Your task to perform on an android device: empty trash in google photos Image 0: 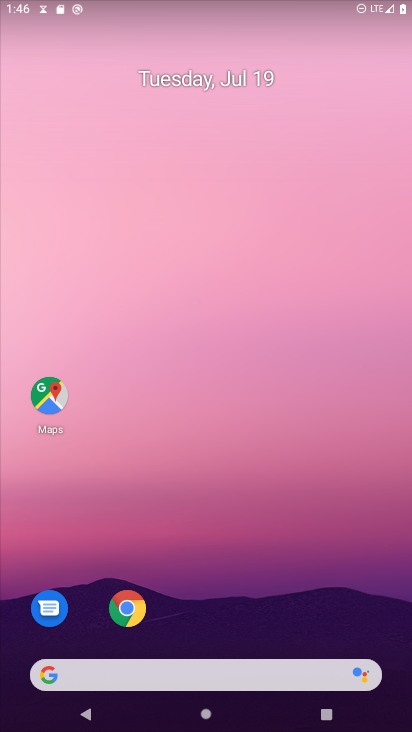
Step 0: click (222, 36)
Your task to perform on an android device: empty trash in google photos Image 1: 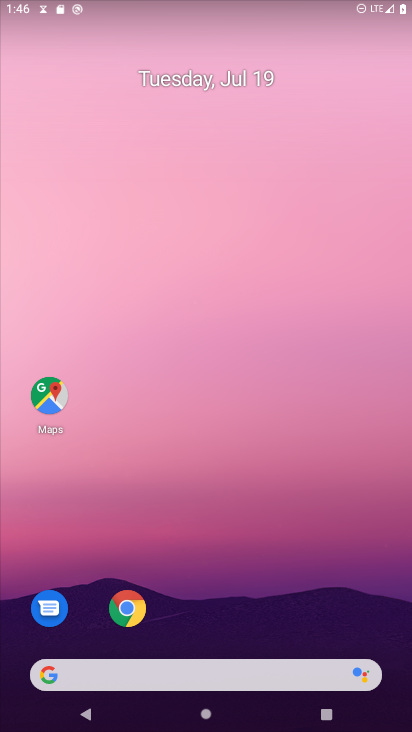
Step 1: drag from (311, 683) to (357, 11)
Your task to perform on an android device: empty trash in google photos Image 2: 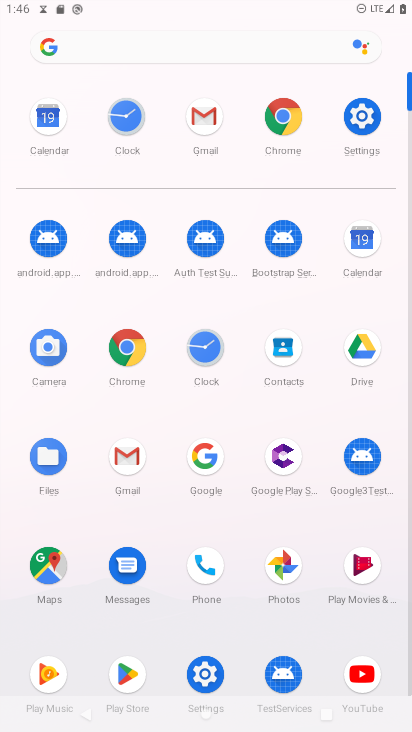
Step 2: click (275, 569)
Your task to perform on an android device: empty trash in google photos Image 3: 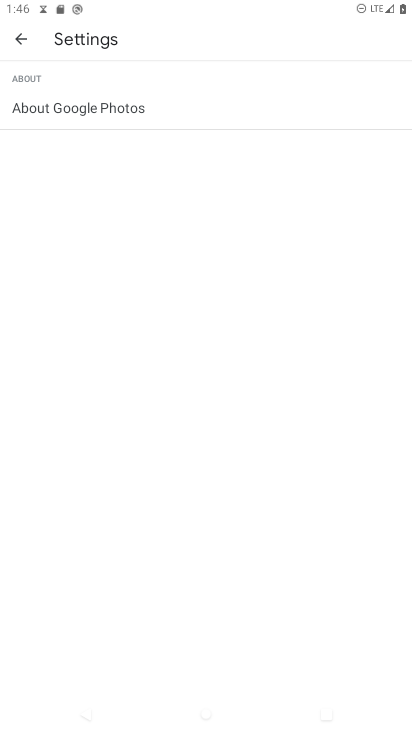
Step 3: press back button
Your task to perform on an android device: empty trash in google photos Image 4: 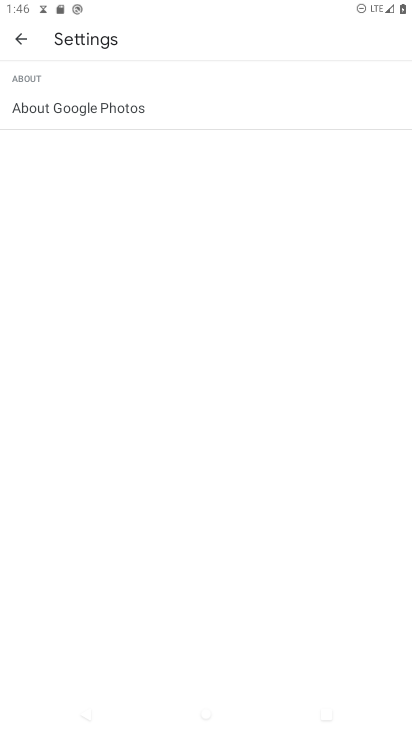
Step 4: press back button
Your task to perform on an android device: empty trash in google photos Image 5: 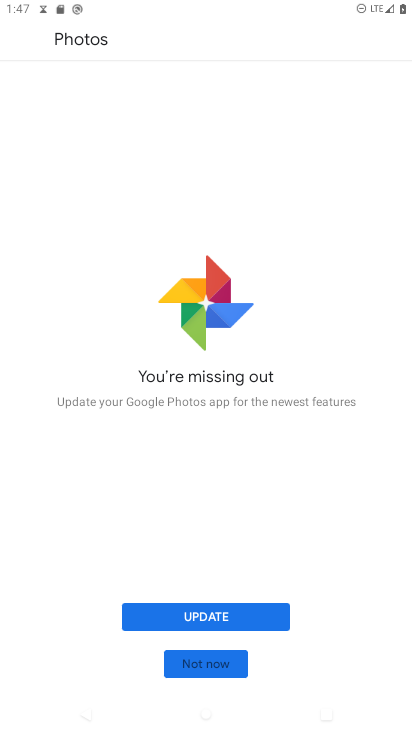
Step 5: click (221, 616)
Your task to perform on an android device: empty trash in google photos Image 6: 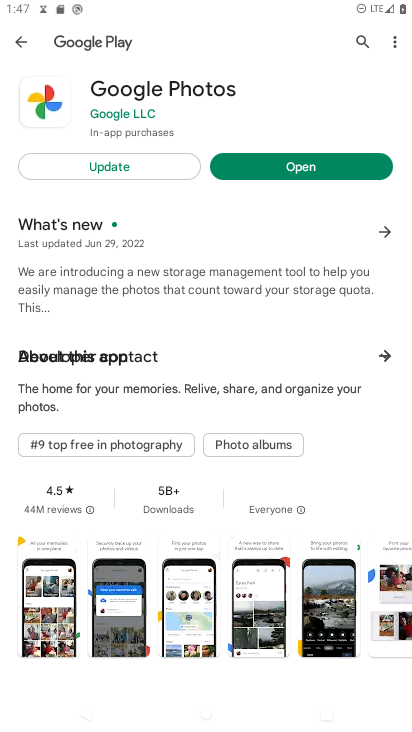
Step 6: click (132, 161)
Your task to perform on an android device: empty trash in google photos Image 7: 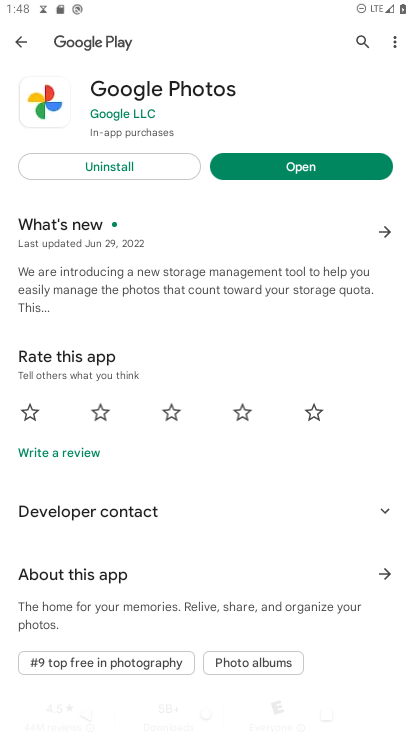
Step 7: click (314, 174)
Your task to perform on an android device: empty trash in google photos Image 8: 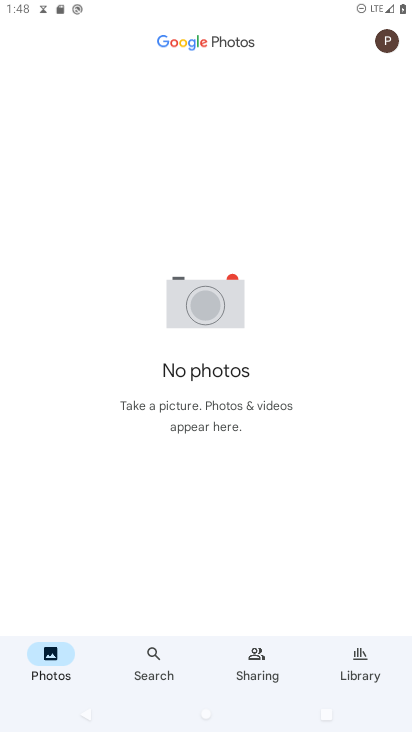
Step 8: click (390, 38)
Your task to perform on an android device: empty trash in google photos Image 9: 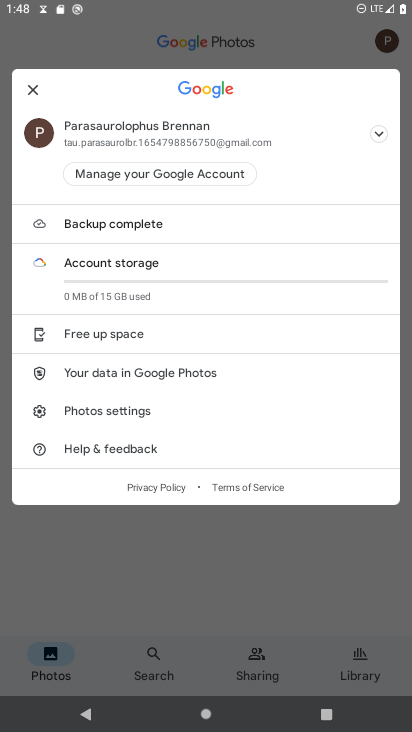
Step 9: click (177, 565)
Your task to perform on an android device: empty trash in google photos Image 10: 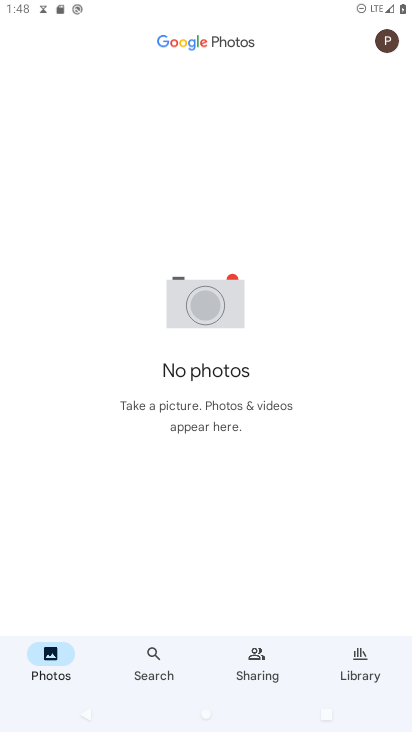
Step 10: click (367, 666)
Your task to perform on an android device: empty trash in google photos Image 11: 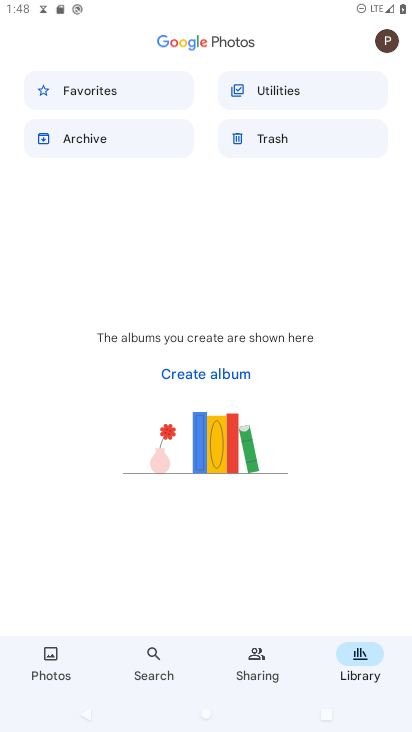
Step 11: click (245, 130)
Your task to perform on an android device: empty trash in google photos Image 12: 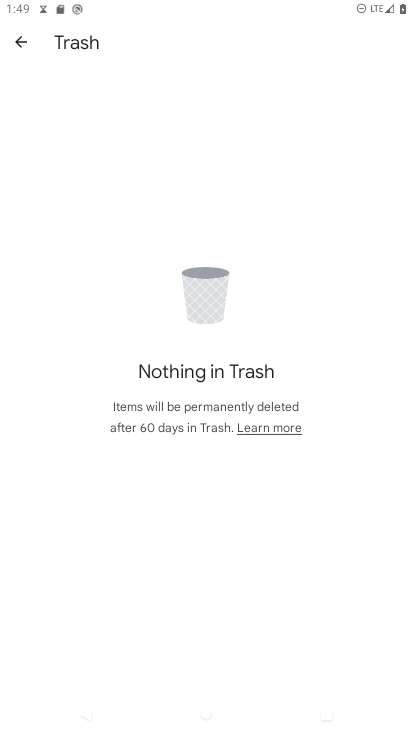
Step 12: task complete